Your task to perform on an android device: Go to Google maps Image 0: 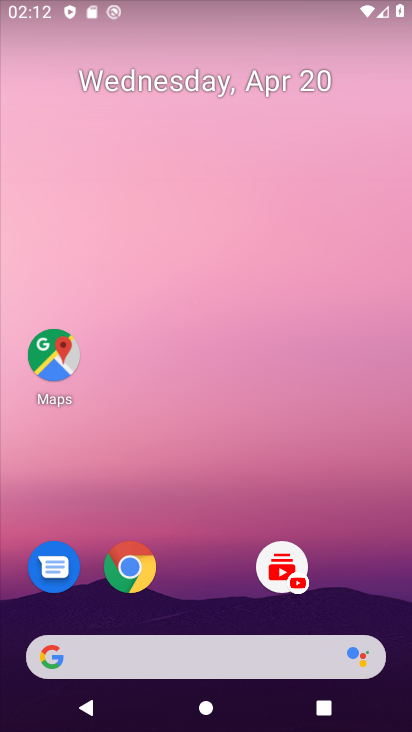
Step 0: drag from (193, 601) to (128, 109)
Your task to perform on an android device: Go to Google maps Image 1: 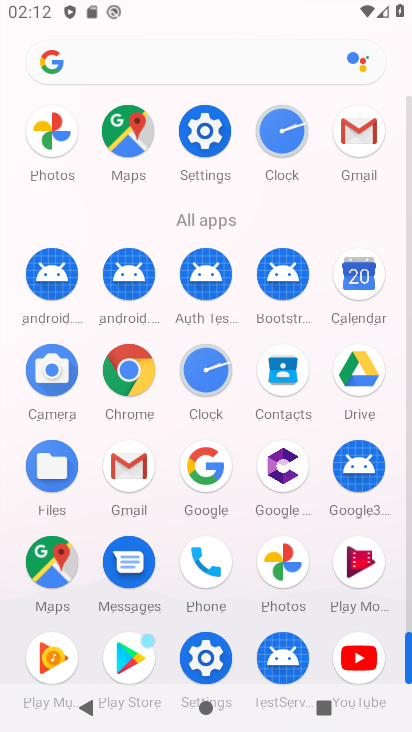
Step 1: click (48, 551)
Your task to perform on an android device: Go to Google maps Image 2: 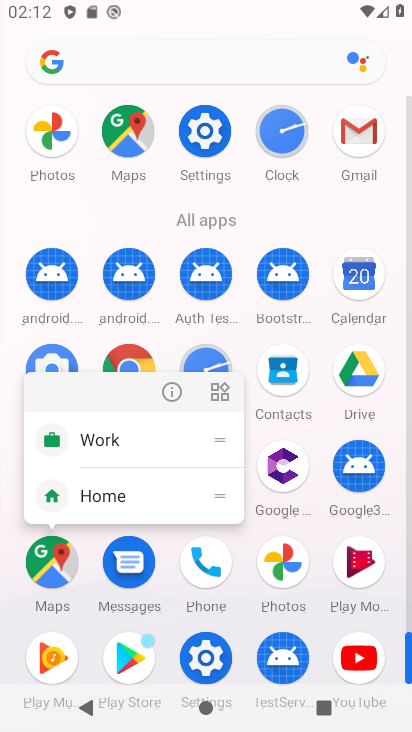
Step 2: click (164, 392)
Your task to perform on an android device: Go to Google maps Image 3: 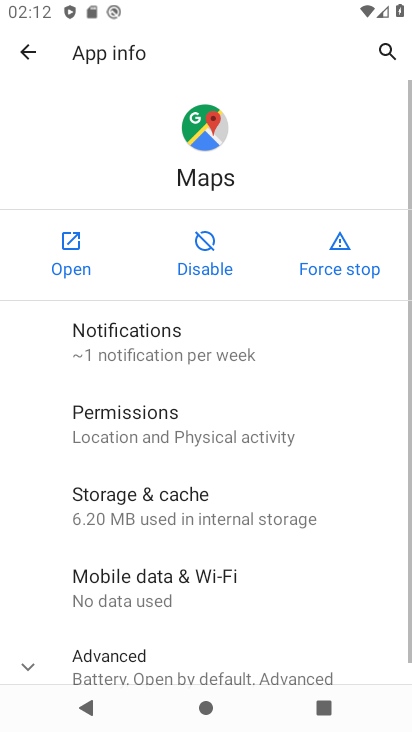
Step 3: click (86, 258)
Your task to perform on an android device: Go to Google maps Image 4: 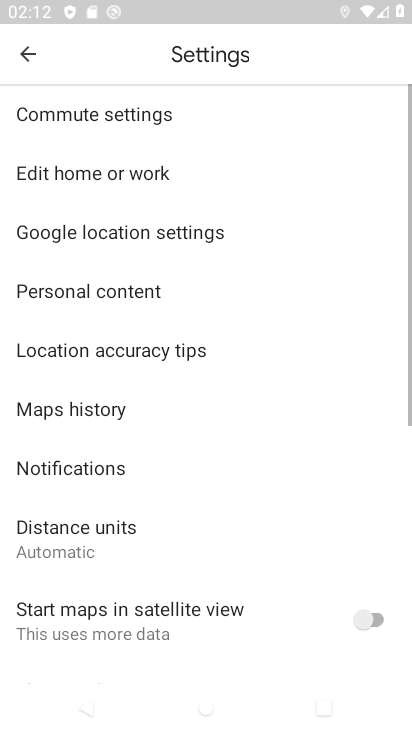
Step 4: drag from (254, 534) to (204, 58)
Your task to perform on an android device: Go to Google maps Image 5: 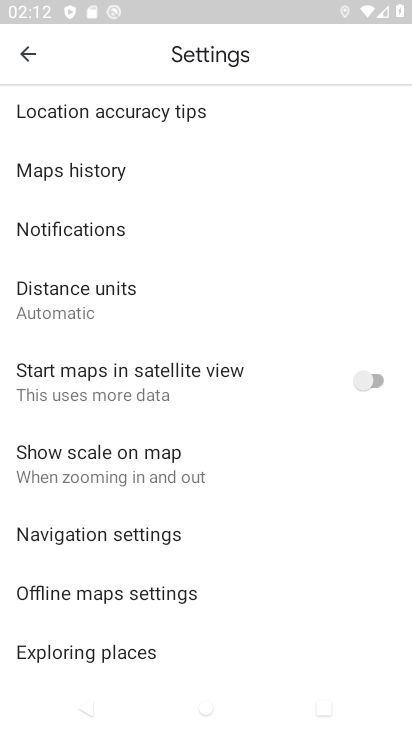
Step 5: drag from (247, 172) to (373, 724)
Your task to perform on an android device: Go to Google maps Image 6: 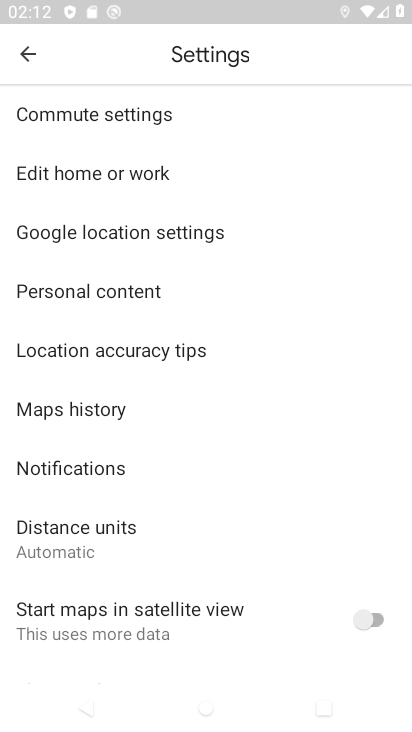
Step 6: click (30, 40)
Your task to perform on an android device: Go to Google maps Image 7: 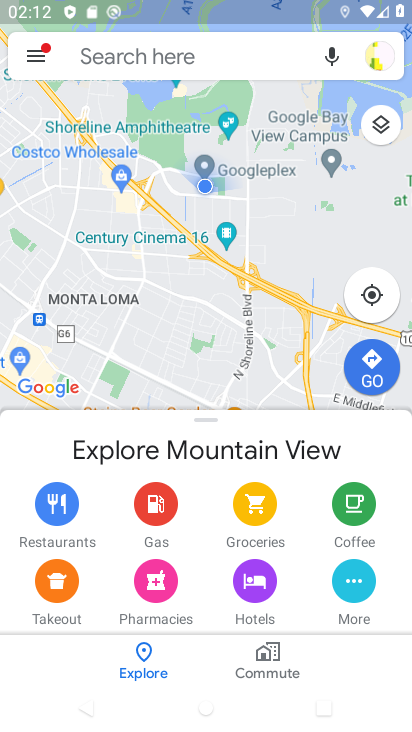
Step 7: task complete